Your task to perform on an android device: find snoozed emails in the gmail app Image 0: 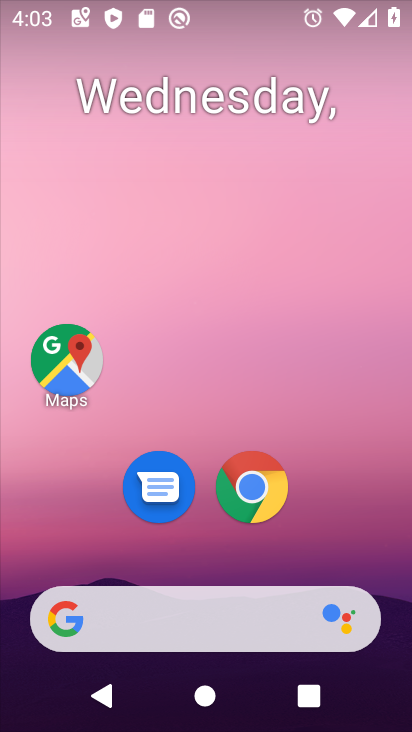
Step 0: drag from (378, 553) to (391, 169)
Your task to perform on an android device: find snoozed emails in the gmail app Image 1: 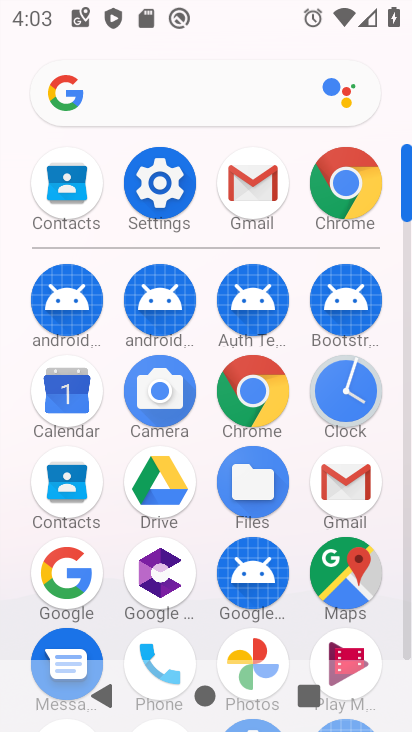
Step 1: click (361, 479)
Your task to perform on an android device: find snoozed emails in the gmail app Image 2: 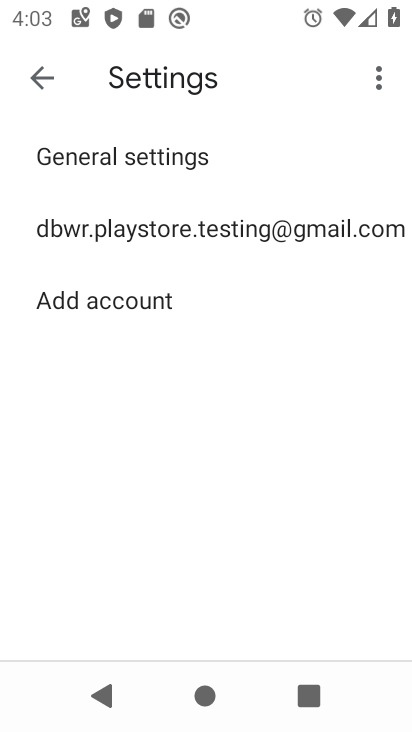
Step 2: press back button
Your task to perform on an android device: find snoozed emails in the gmail app Image 3: 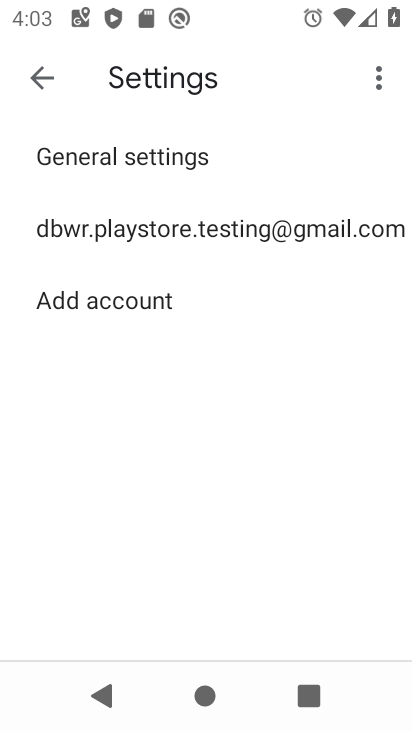
Step 3: press back button
Your task to perform on an android device: find snoozed emails in the gmail app Image 4: 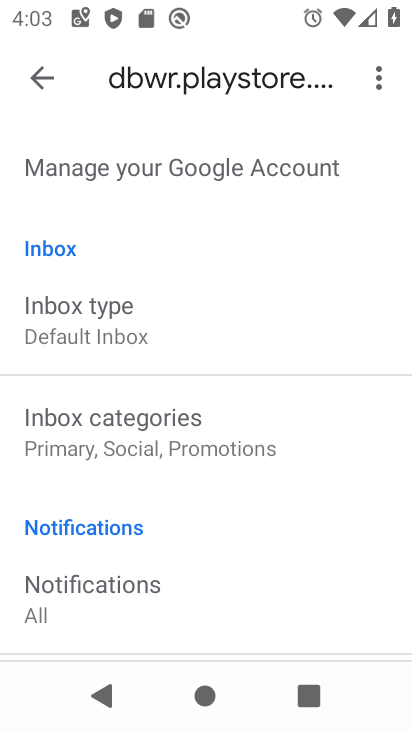
Step 4: press back button
Your task to perform on an android device: find snoozed emails in the gmail app Image 5: 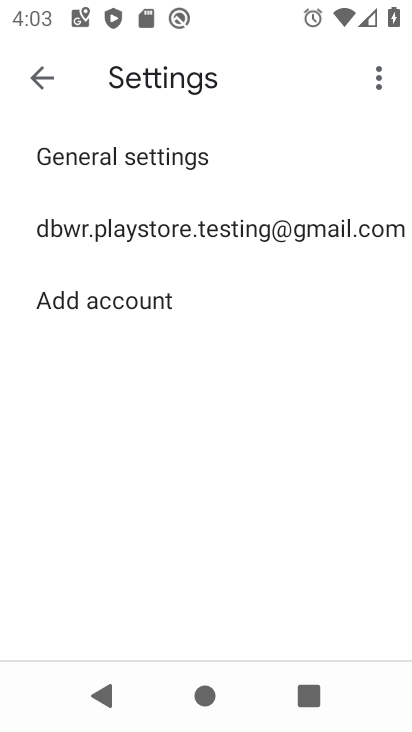
Step 5: press back button
Your task to perform on an android device: find snoozed emails in the gmail app Image 6: 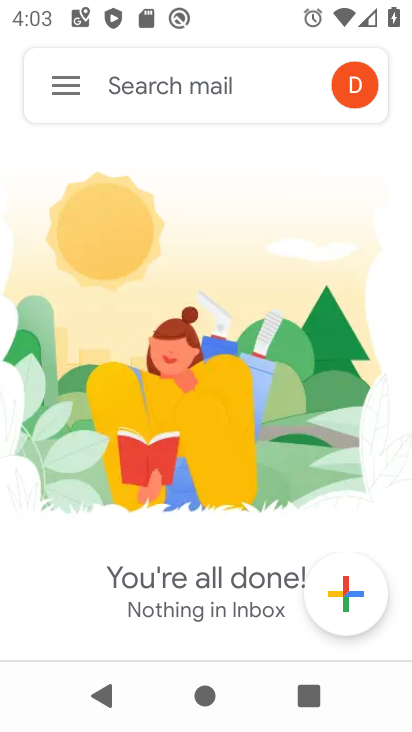
Step 6: click (70, 86)
Your task to perform on an android device: find snoozed emails in the gmail app Image 7: 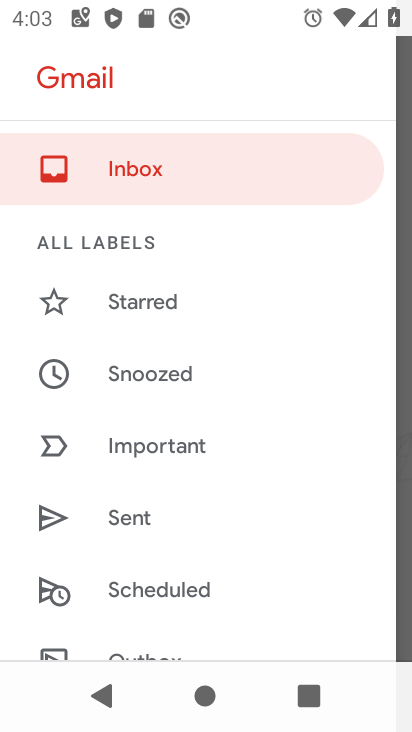
Step 7: click (205, 384)
Your task to perform on an android device: find snoozed emails in the gmail app Image 8: 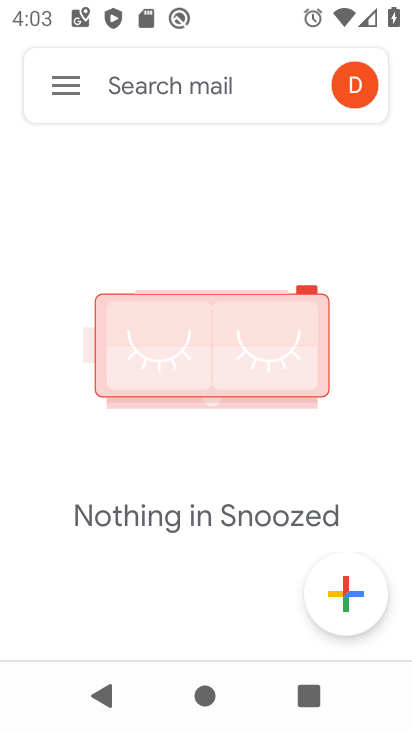
Step 8: task complete